Your task to perform on an android device: Open display settings Image 0: 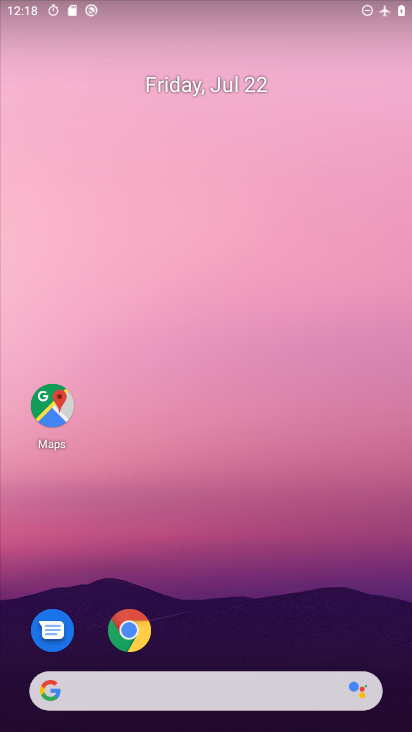
Step 0: press home button
Your task to perform on an android device: Open display settings Image 1: 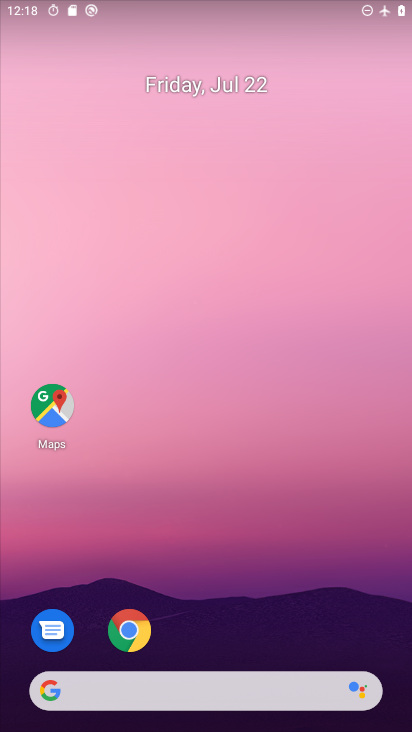
Step 1: drag from (229, 630) to (195, 198)
Your task to perform on an android device: Open display settings Image 2: 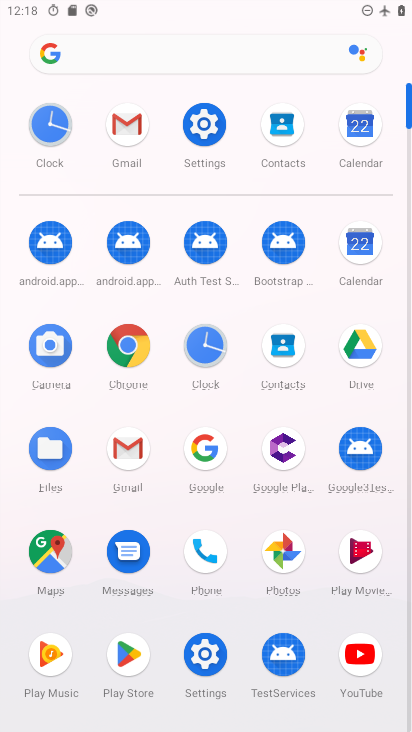
Step 2: click (197, 136)
Your task to perform on an android device: Open display settings Image 3: 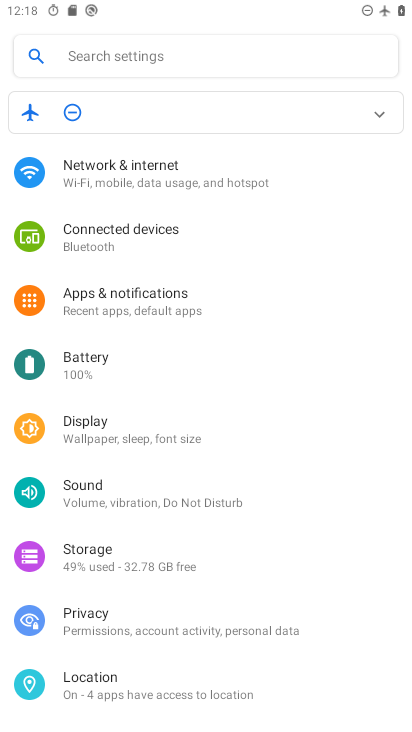
Step 3: click (91, 430)
Your task to perform on an android device: Open display settings Image 4: 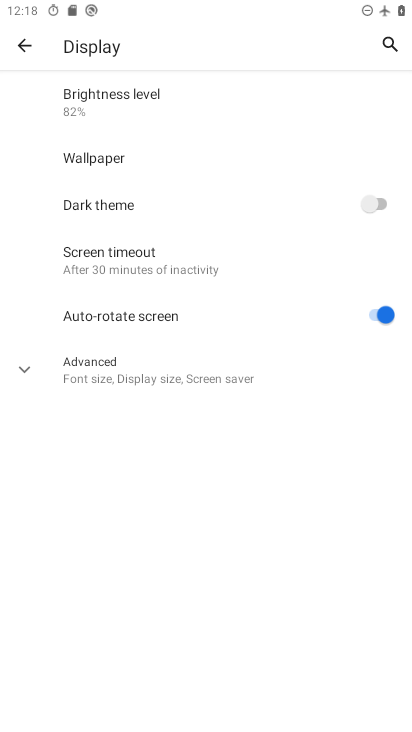
Step 4: task complete